Your task to perform on an android device: see creations saved in the google photos Image 0: 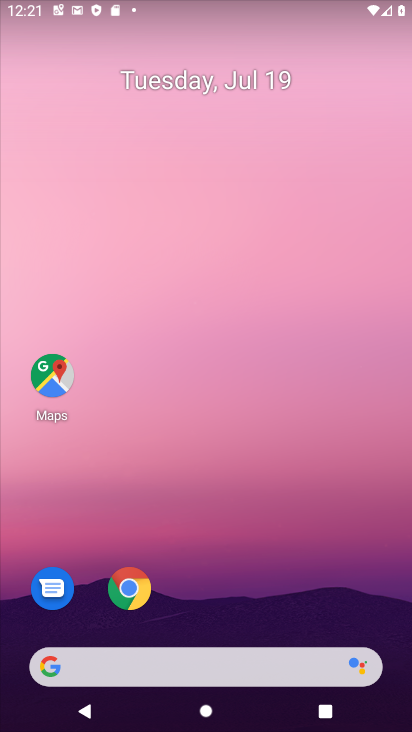
Step 0: drag from (349, 605) to (170, 1)
Your task to perform on an android device: see creations saved in the google photos Image 1: 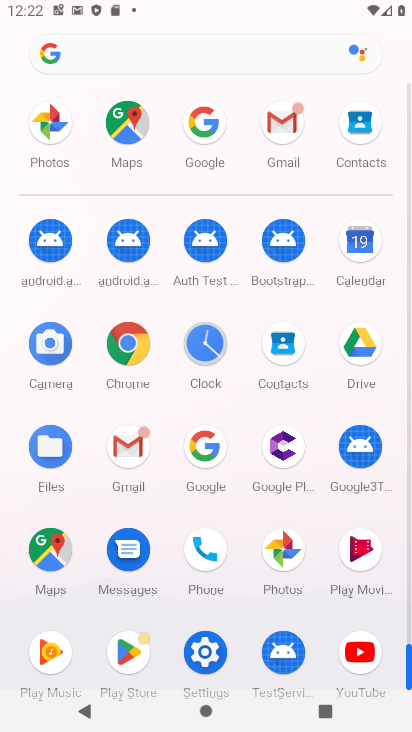
Step 1: click (264, 533)
Your task to perform on an android device: see creations saved in the google photos Image 2: 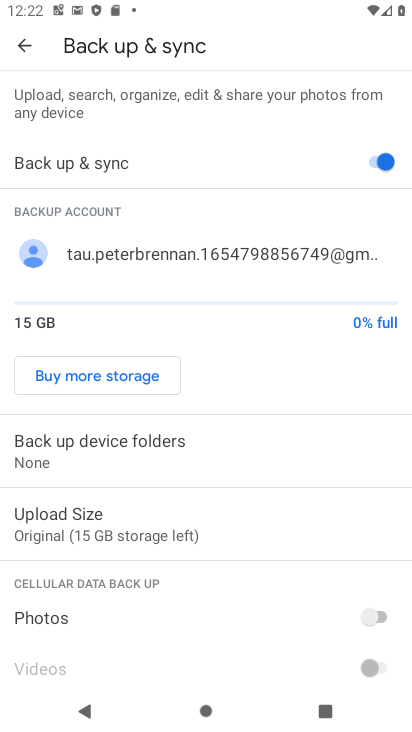
Step 2: press back button
Your task to perform on an android device: see creations saved in the google photos Image 3: 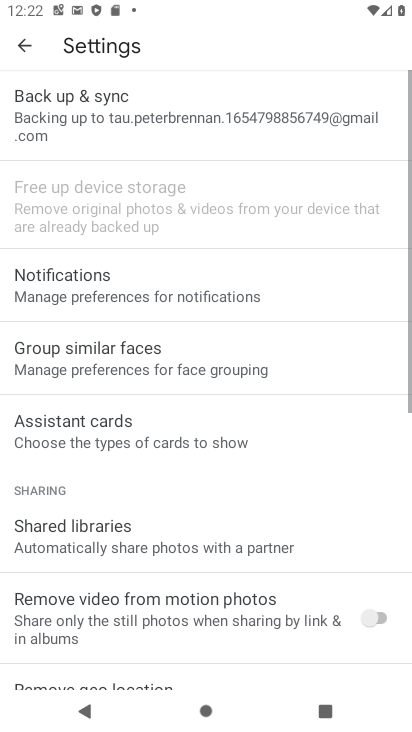
Step 3: press back button
Your task to perform on an android device: see creations saved in the google photos Image 4: 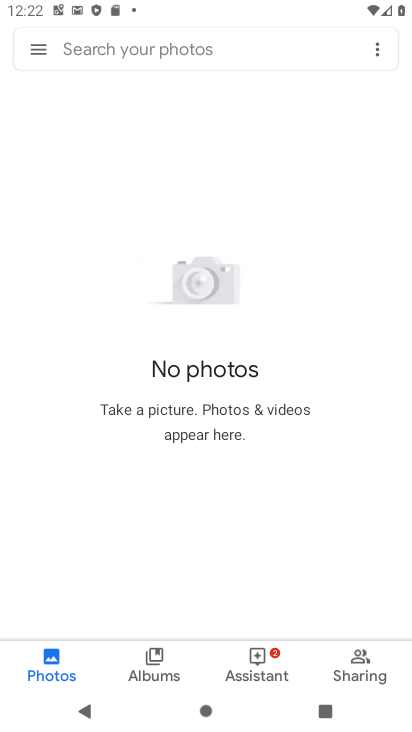
Step 4: click (119, 28)
Your task to perform on an android device: see creations saved in the google photos Image 5: 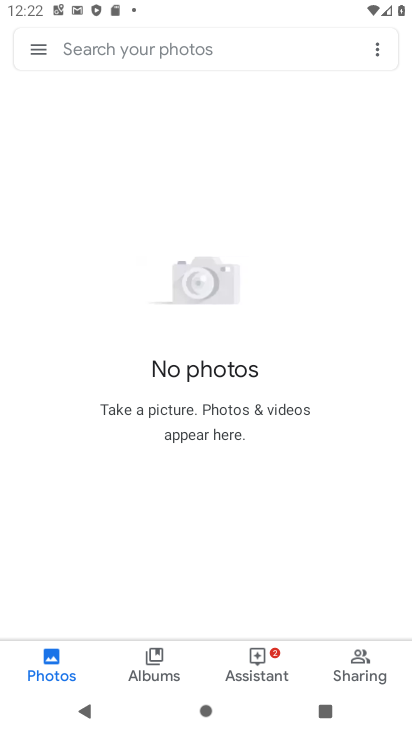
Step 5: click (148, 46)
Your task to perform on an android device: see creations saved in the google photos Image 6: 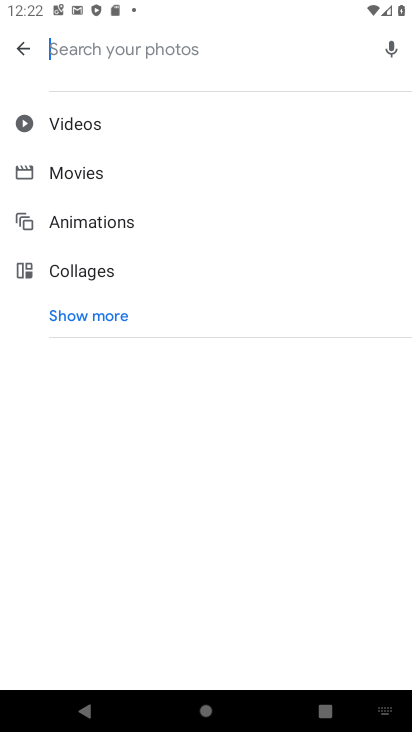
Step 6: click (90, 309)
Your task to perform on an android device: see creations saved in the google photos Image 7: 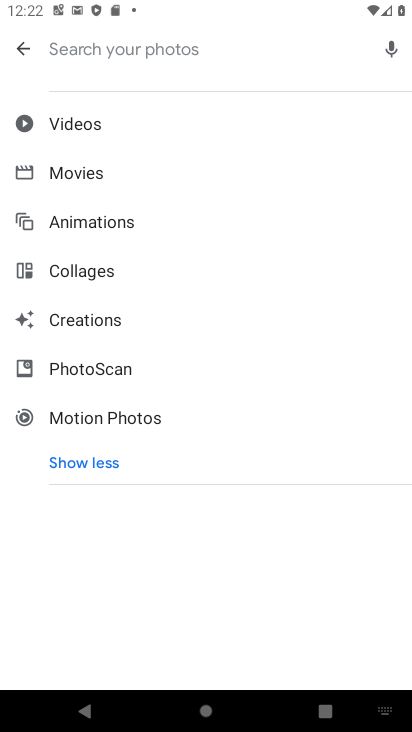
Step 7: click (90, 326)
Your task to perform on an android device: see creations saved in the google photos Image 8: 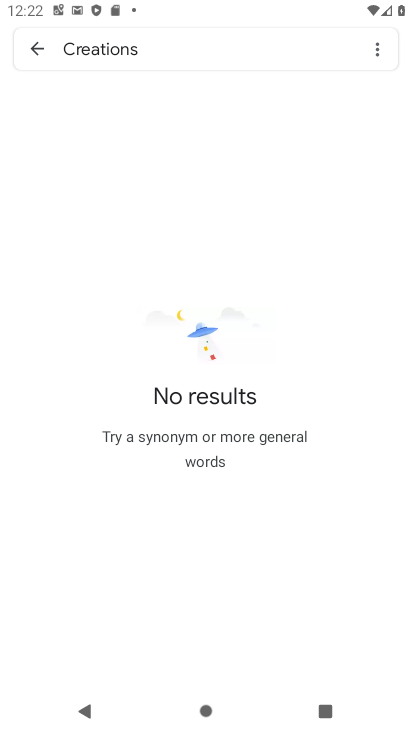
Step 8: task complete